Your task to perform on an android device: manage bookmarks in the chrome app Image 0: 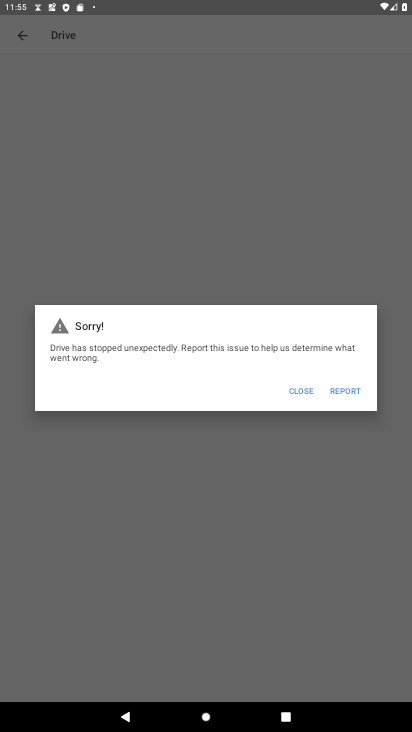
Step 0: press home button
Your task to perform on an android device: manage bookmarks in the chrome app Image 1: 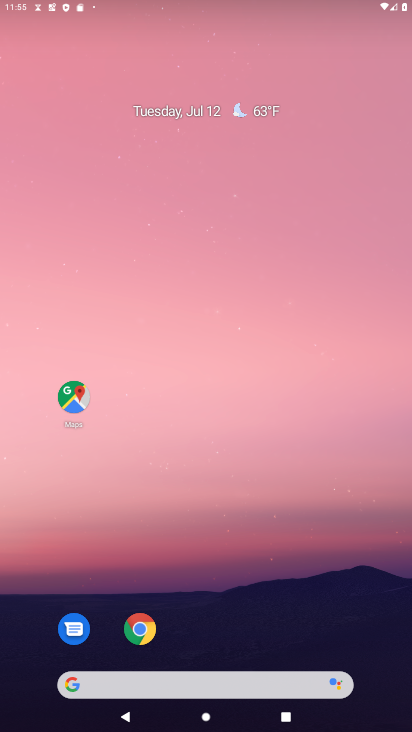
Step 1: drag from (371, 611) to (258, 58)
Your task to perform on an android device: manage bookmarks in the chrome app Image 2: 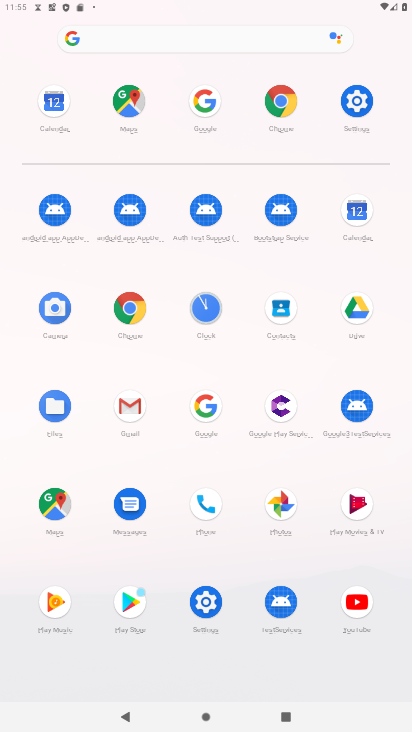
Step 2: click (275, 109)
Your task to perform on an android device: manage bookmarks in the chrome app Image 3: 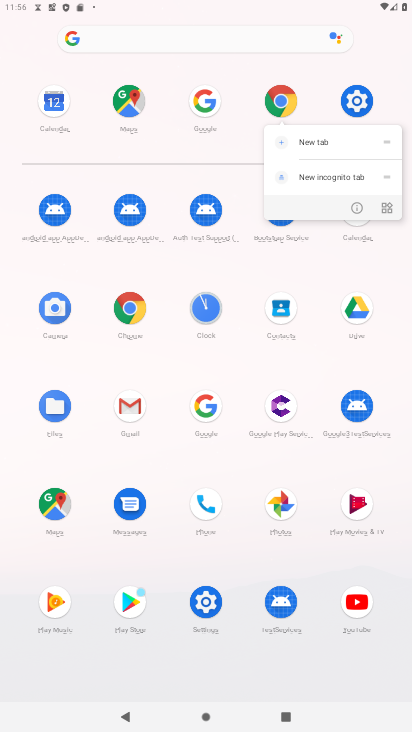
Step 3: click (275, 109)
Your task to perform on an android device: manage bookmarks in the chrome app Image 4: 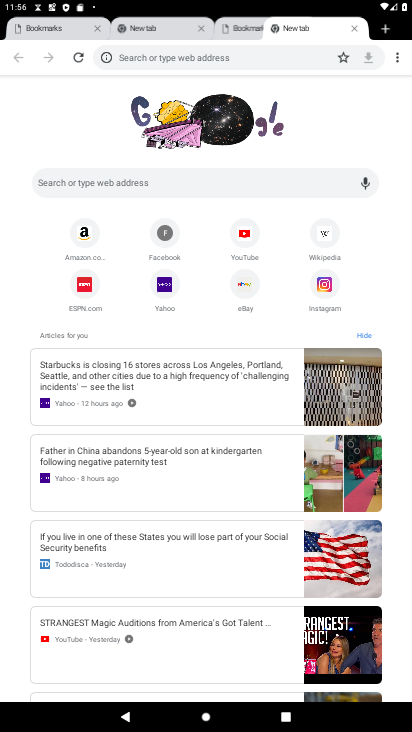
Step 4: drag from (408, 65) to (309, 116)
Your task to perform on an android device: manage bookmarks in the chrome app Image 5: 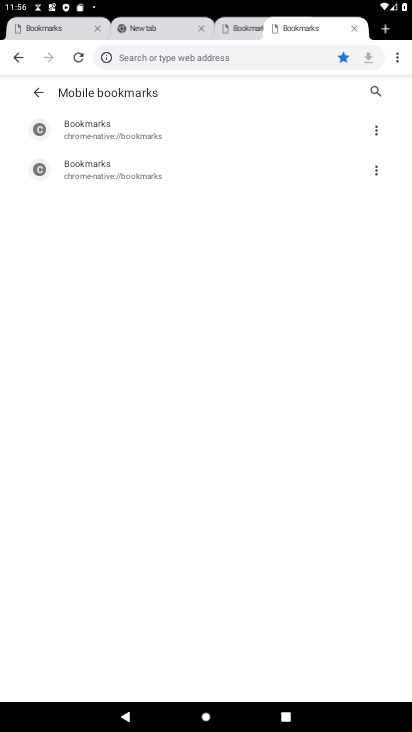
Step 5: click (371, 130)
Your task to perform on an android device: manage bookmarks in the chrome app Image 6: 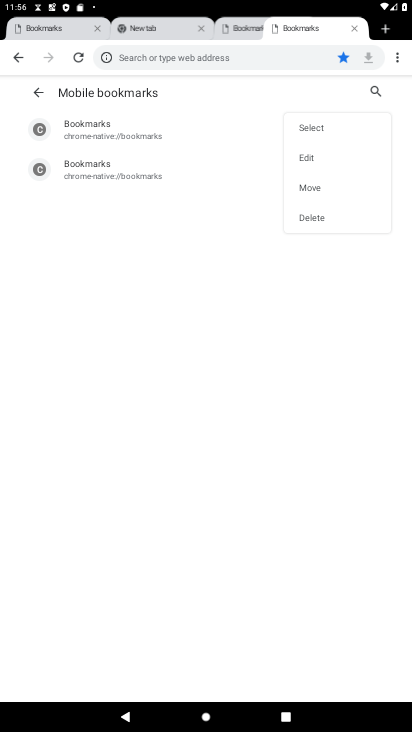
Step 6: click (314, 211)
Your task to perform on an android device: manage bookmarks in the chrome app Image 7: 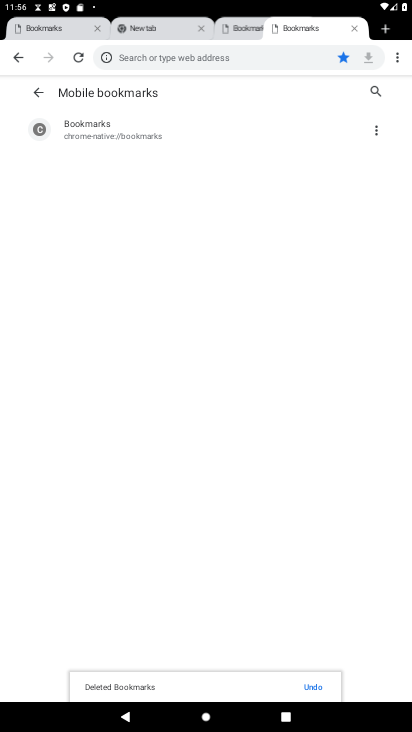
Step 7: task complete